Your task to perform on an android device: set the timer Image 0: 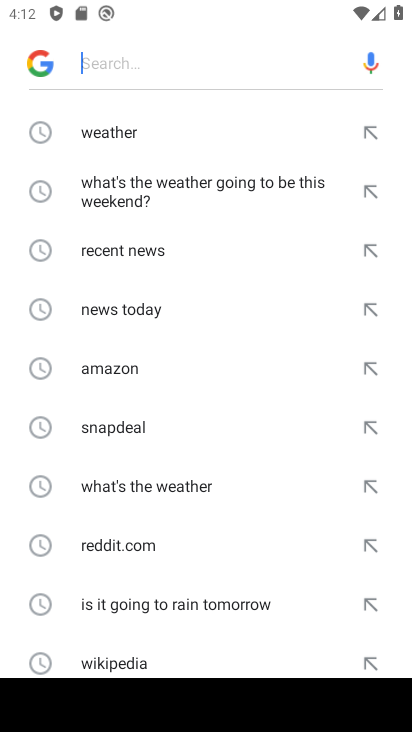
Step 0: press back button
Your task to perform on an android device: set the timer Image 1: 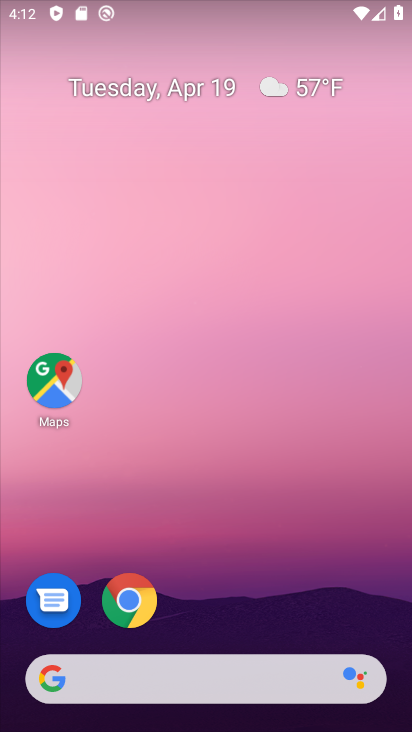
Step 1: drag from (243, 602) to (244, 89)
Your task to perform on an android device: set the timer Image 2: 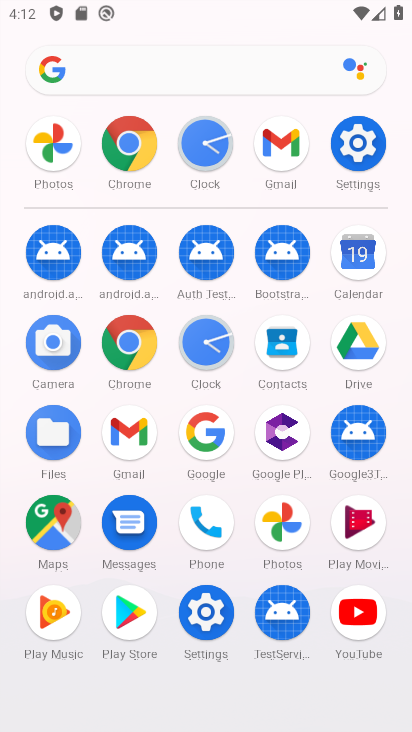
Step 2: click (204, 350)
Your task to perform on an android device: set the timer Image 3: 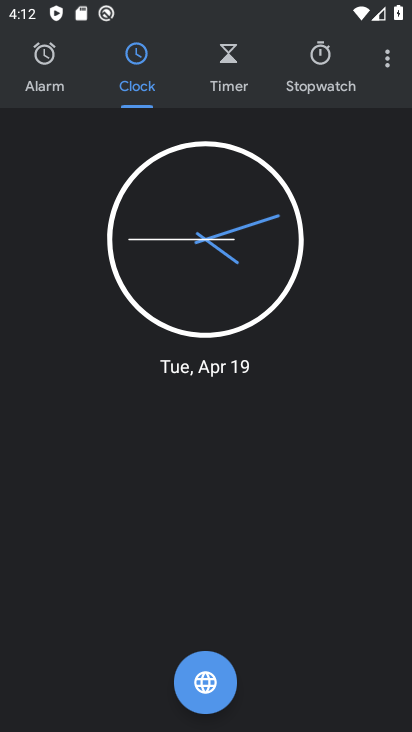
Step 3: click (246, 74)
Your task to perform on an android device: set the timer Image 4: 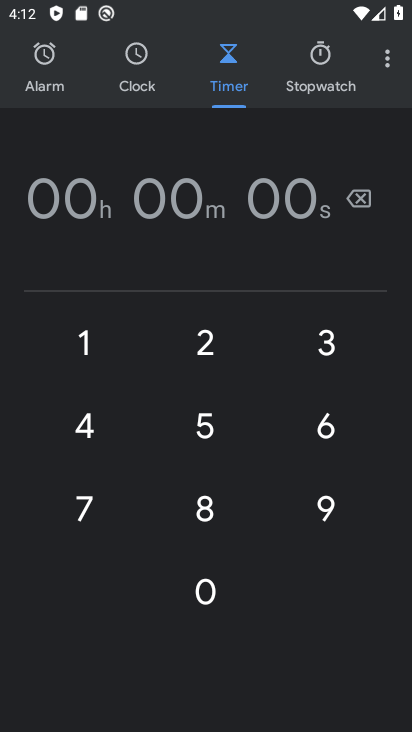
Step 4: type "10000"
Your task to perform on an android device: set the timer Image 5: 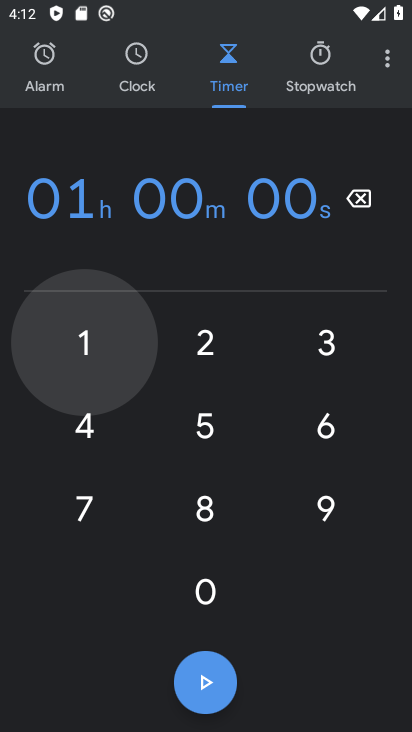
Step 5: click (204, 685)
Your task to perform on an android device: set the timer Image 6: 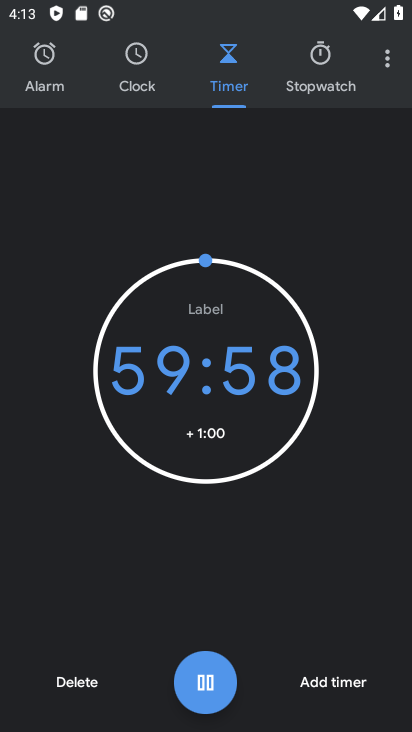
Step 6: task complete